Your task to perform on an android device: Open Android settings Image 0: 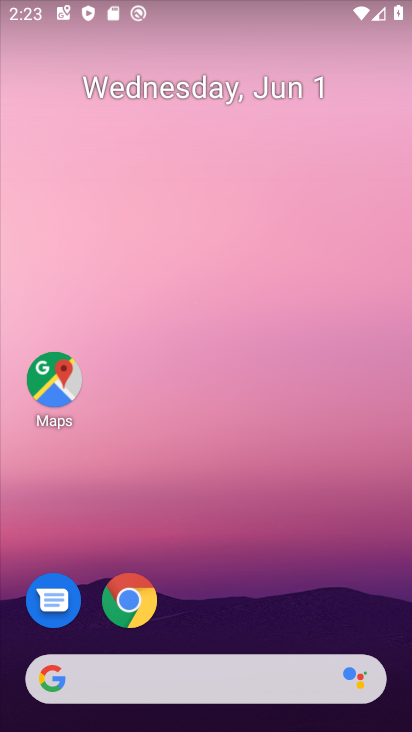
Step 0: drag from (272, 363) to (189, 11)
Your task to perform on an android device: Open Android settings Image 1: 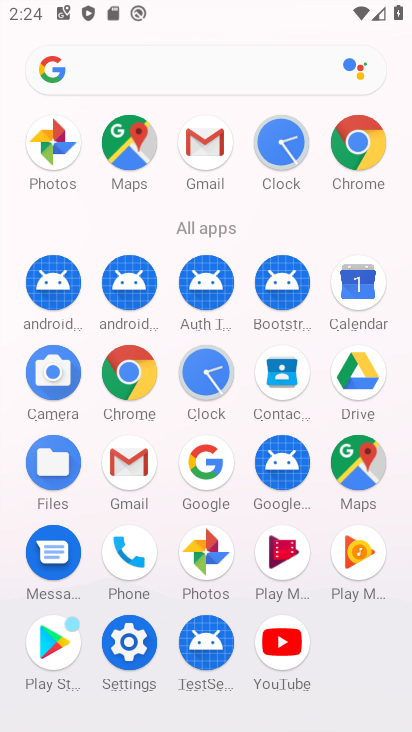
Step 1: drag from (16, 585) to (33, 150)
Your task to perform on an android device: Open Android settings Image 2: 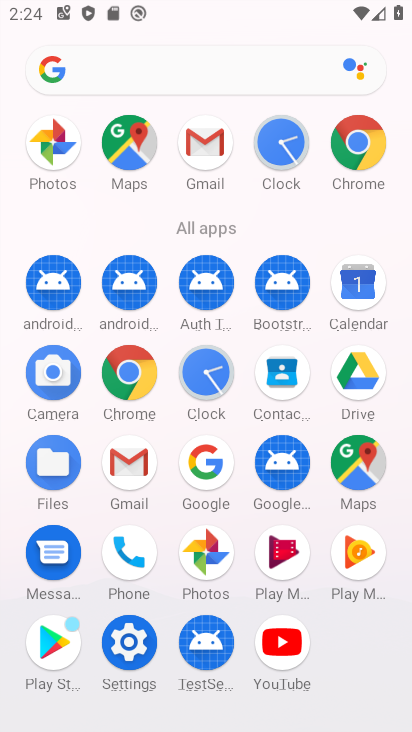
Step 2: click (128, 640)
Your task to perform on an android device: Open Android settings Image 3: 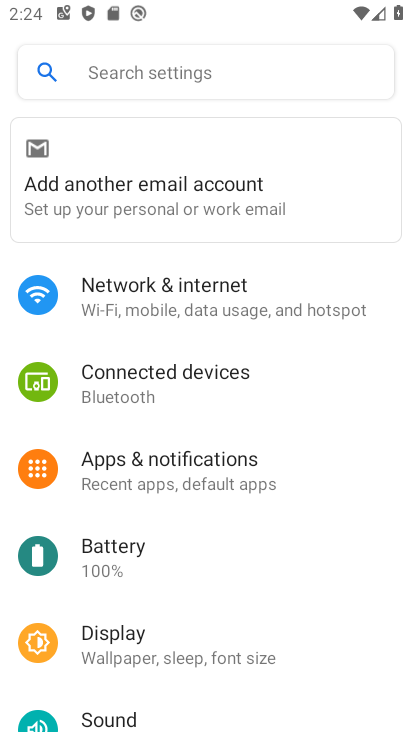
Step 3: task complete